Your task to perform on an android device: Play the last video I watched on Youtube Image 0: 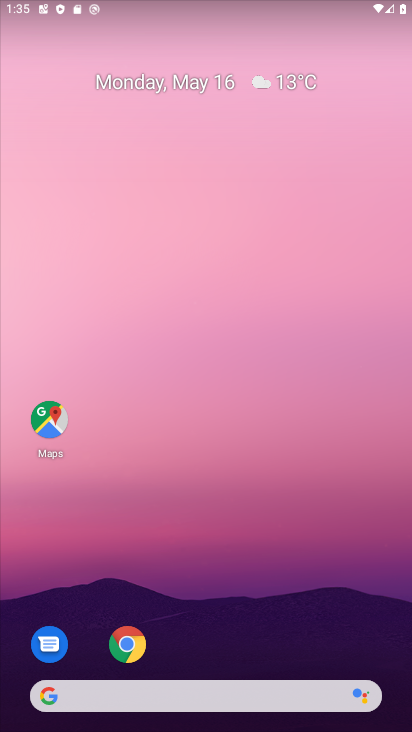
Step 0: drag from (217, 684) to (233, 116)
Your task to perform on an android device: Play the last video I watched on Youtube Image 1: 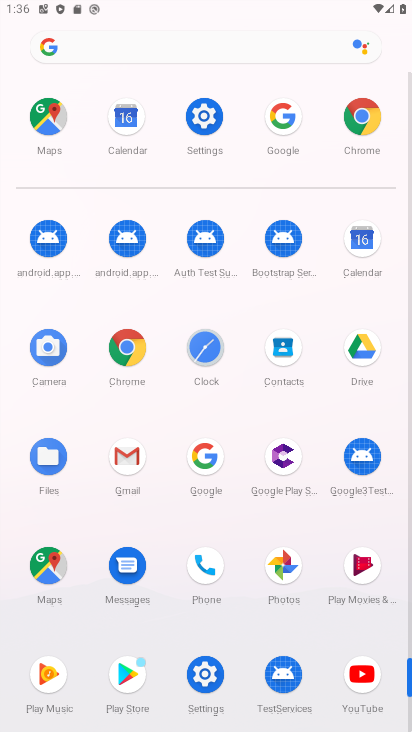
Step 1: click (358, 695)
Your task to perform on an android device: Play the last video I watched on Youtube Image 2: 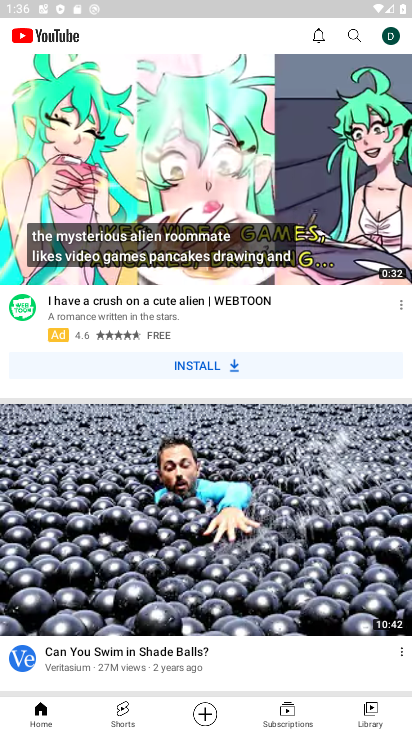
Step 2: click (375, 720)
Your task to perform on an android device: Play the last video I watched on Youtube Image 3: 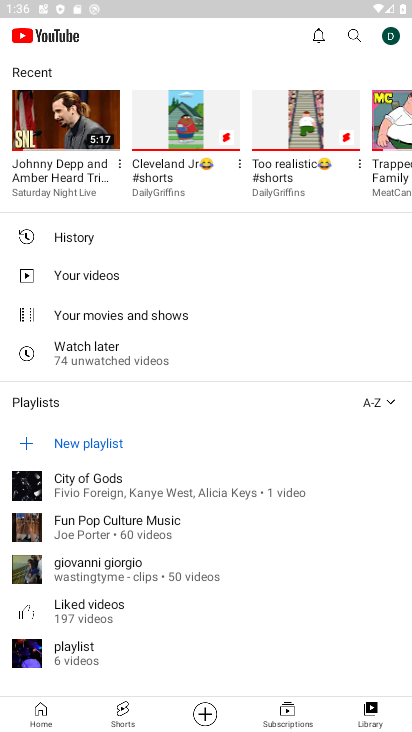
Step 3: click (87, 176)
Your task to perform on an android device: Play the last video I watched on Youtube Image 4: 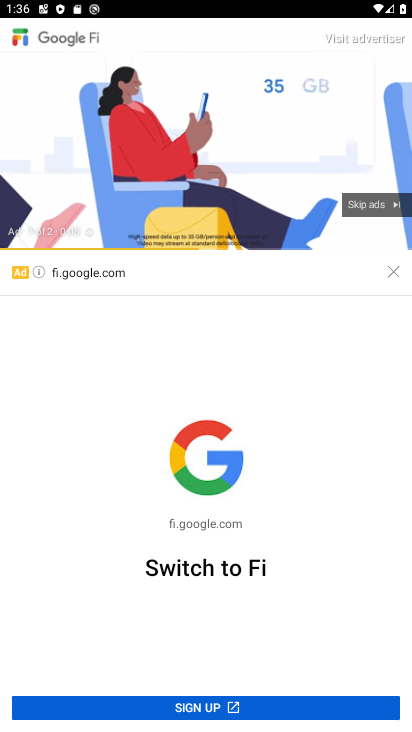
Step 4: click (375, 211)
Your task to perform on an android device: Play the last video I watched on Youtube Image 5: 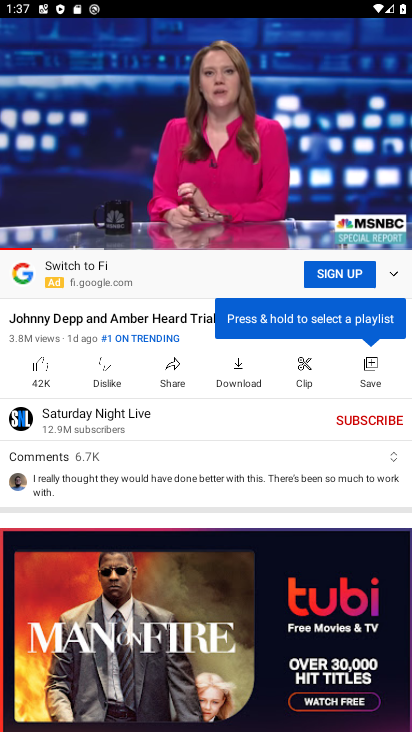
Step 5: task complete